Your task to perform on an android device: Open calendar and show me the second week of next month Image 0: 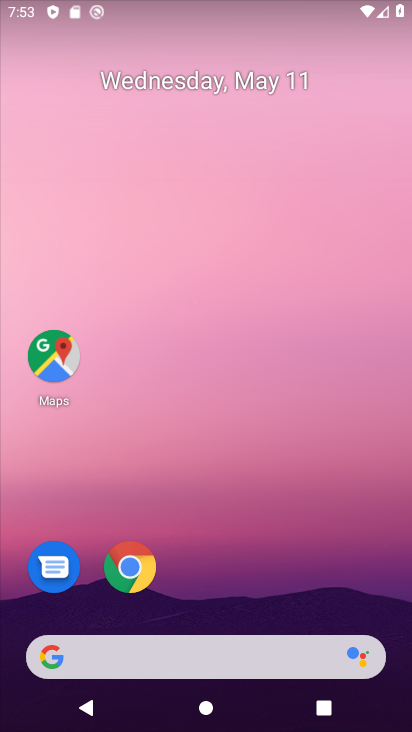
Step 0: drag from (219, 627) to (273, 162)
Your task to perform on an android device: Open calendar and show me the second week of next month Image 1: 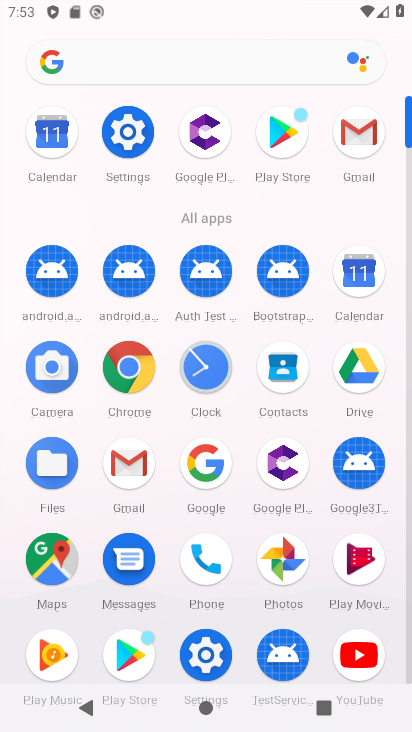
Step 1: click (356, 296)
Your task to perform on an android device: Open calendar and show me the second week of next month Image 2: 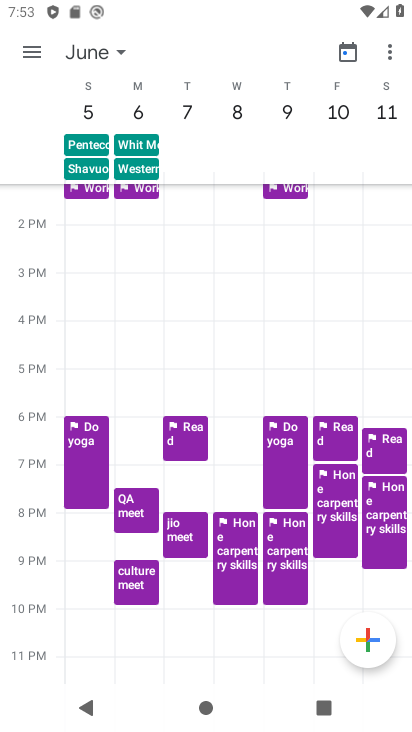
Step 2: task complete